Your task to perform on an android device: Go to Maps Image 0: 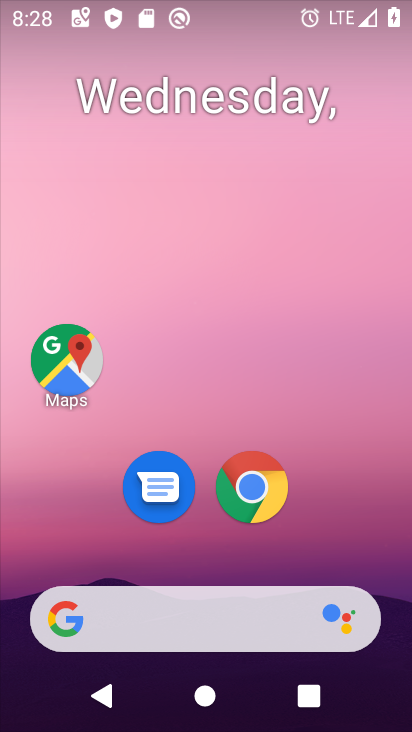
Step 0: click (68, 361)
Your task to perform on an android device: Go to Maps Image 1: 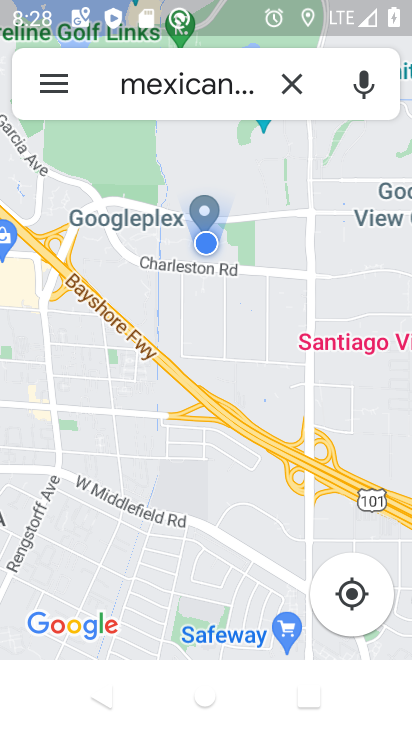
Step 1: task complete